Your task to perform on an android device: Open calendar and show me the first week of next month Image 0: 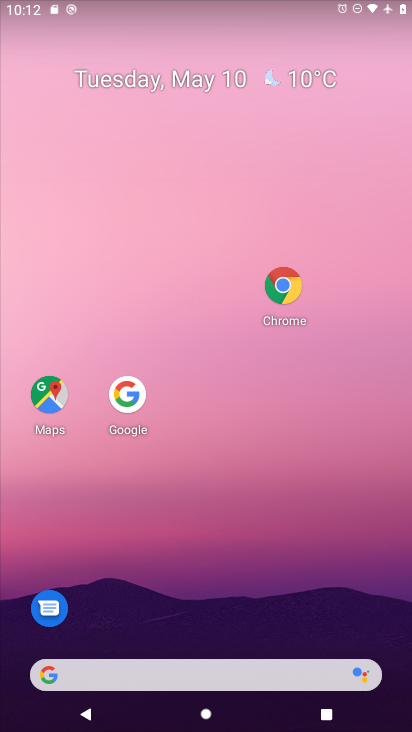
Step 0: drag from (260, 674) to (298, 173)
Your task to perform on an android device: Open calendar and show me the first week of next month Image 1: 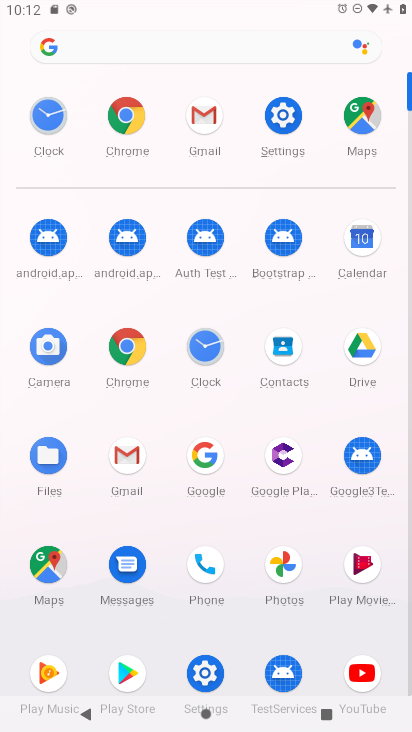
Step 1: click (359, 244)
Your task to perform on an android device: Open calendar and show me the first week of next month Image 2: 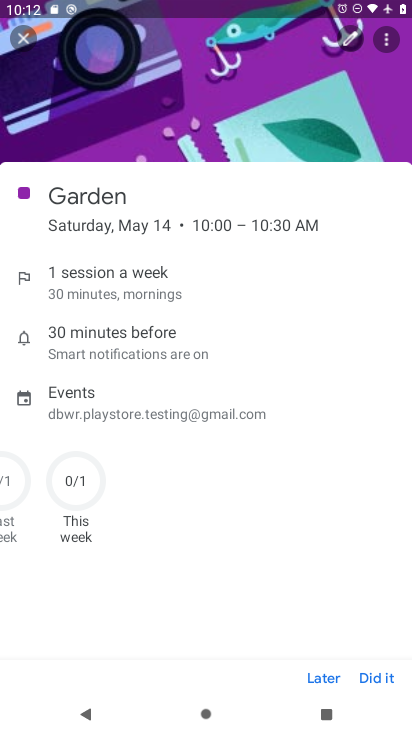
Step 2: click (22, 40)
Your task to perform on an android device: Open calendar and show me the first week of next month Image 3: 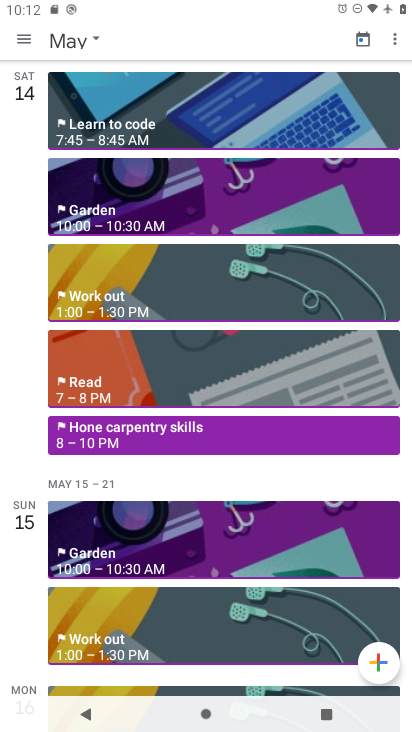
Step 3: click (73, 46)
Your task to perform on an android device: Open calendar and show me the first week of next month Image 4: 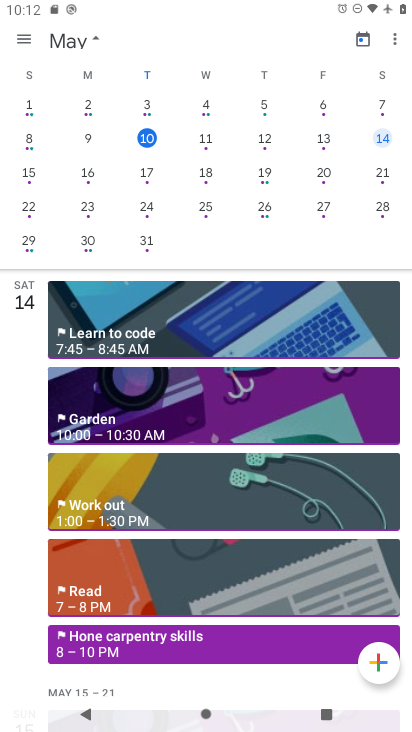
Step 4: drag from (374, 164) to (64, 136)
Your task to perform on an android device: Open calendar and show me the first week of next month Image 5: 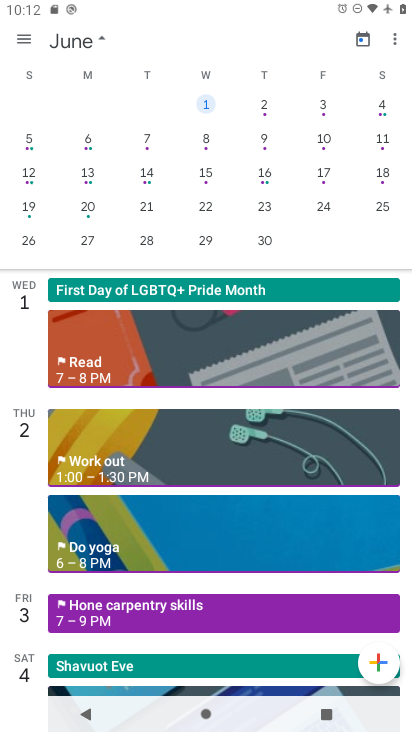
Step 5: click (206, 99)
Your task to perform on an android device: Open calendar and show me the first week of next month Image 6: 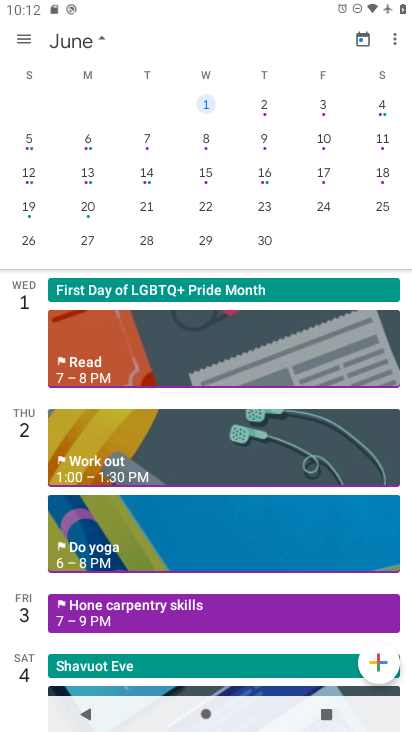
Step 6: click (23, 36)
Your task to perform on an android device: Open calendar and show me the first week of next month Image 7: 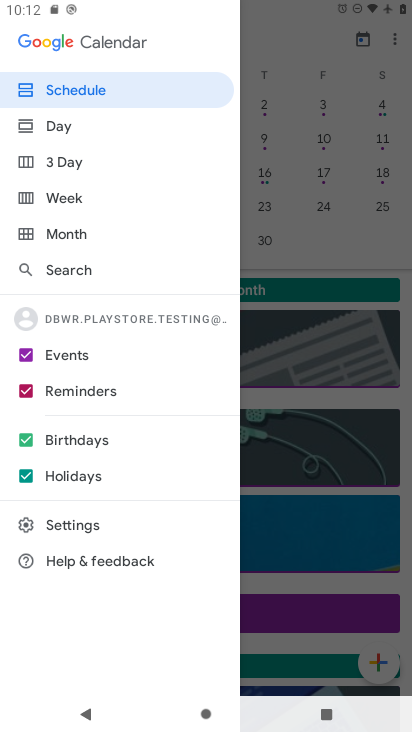
Step 7: click (68, 197)
Your task to perform on an android device: Open calendar and show me the first week of next month Image 8: 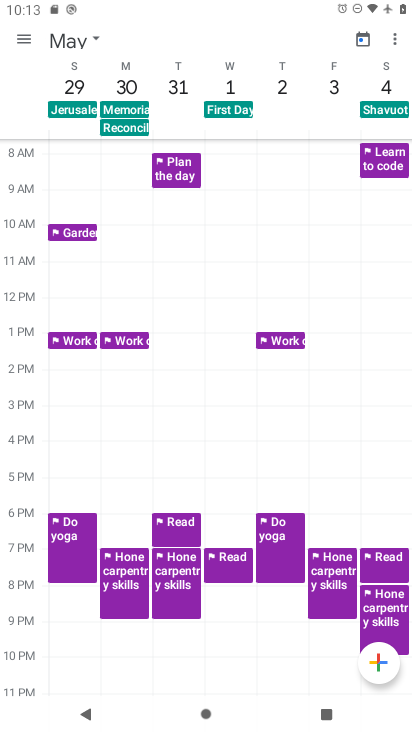
Step 8: task complete